Your task to perform on an android device: change notifications settings Image 0: 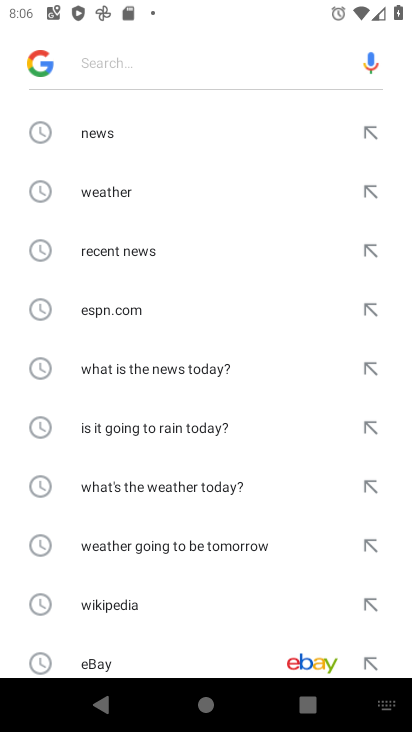
Step 0: press home button
Your task to perform on an android device: change notifications settings Image 1: 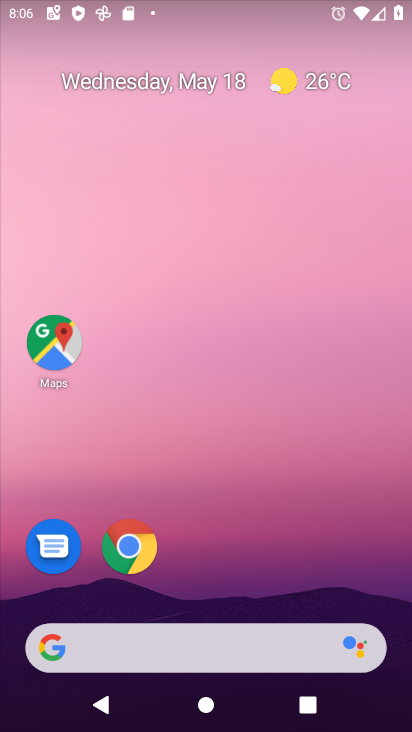
Step 1: drag from (383, 611) to (298, 21)
Your task to perform on an android device: change notifications settings Image 2: 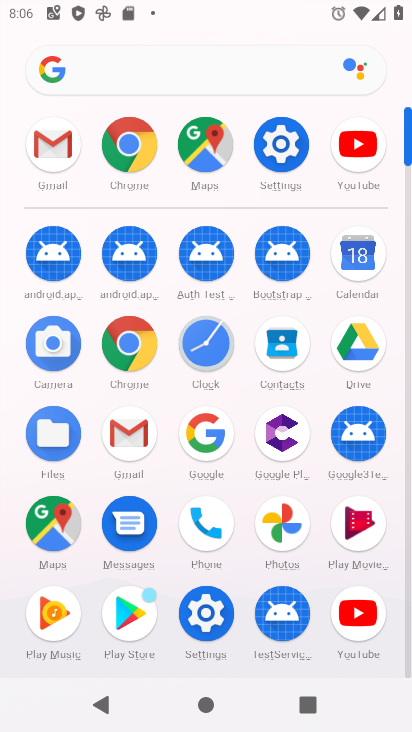
Step 2: click (274, 140)
Your task to perform on an android device: change notifications settings Image 3: 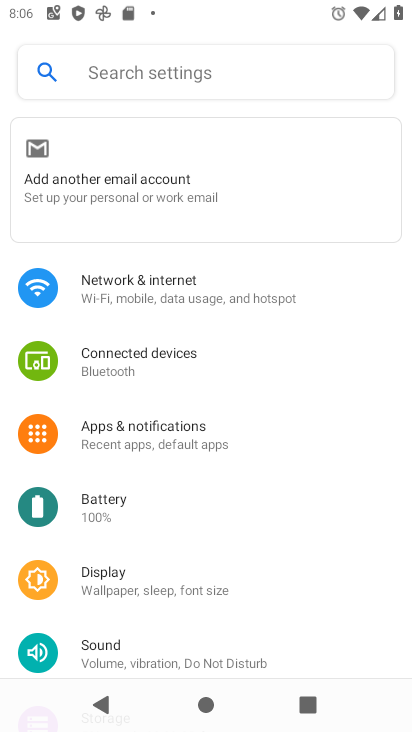
Step 3: click (203, 441)
Your task to perform on an android device: change notifications settings Image 4: 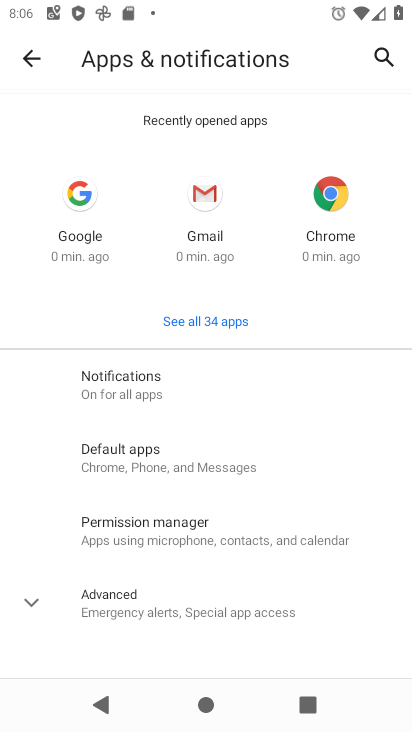
Step 4: click (189, 400)
Your task to perform on an android device: change notifications settings Image 5: 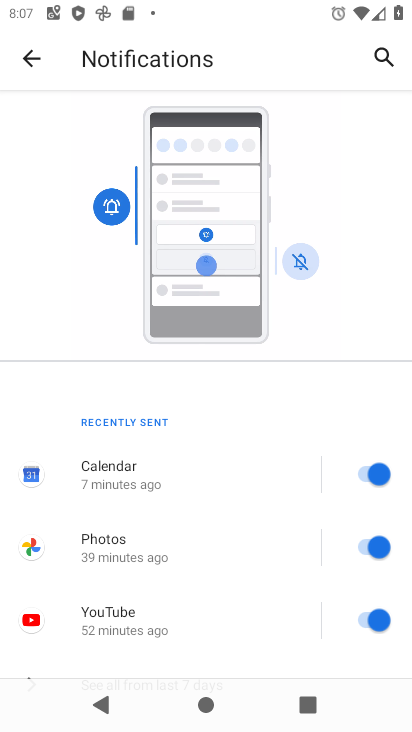
Step 5: task complete